Your task to perform on an android device: Open Google Chrome and open the bookmarks view Image 0: 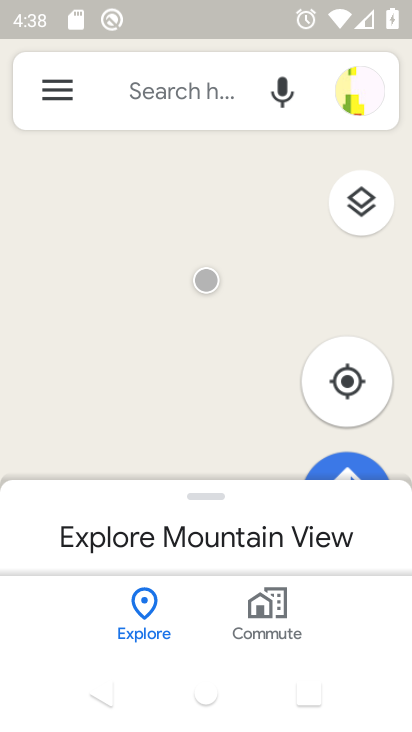
Step 0: press home button
Your task to perform on an android device: Open Google Chrome and open the bookmarks view Image 1: 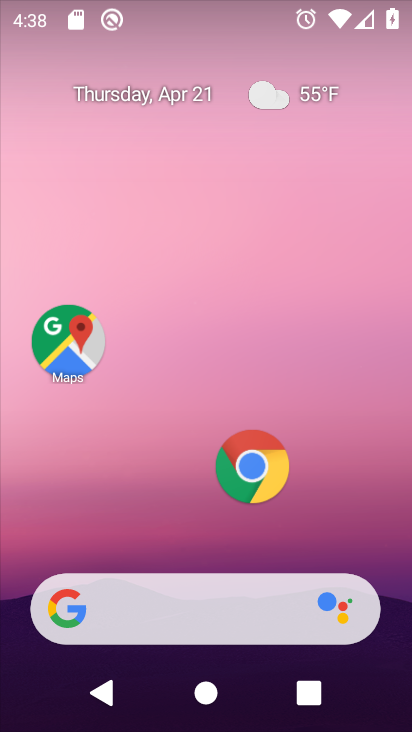
Step 1: click (253, 475)
Your task to perform on an android device: Open Google Chrome and open the bookmarks view Image 2: 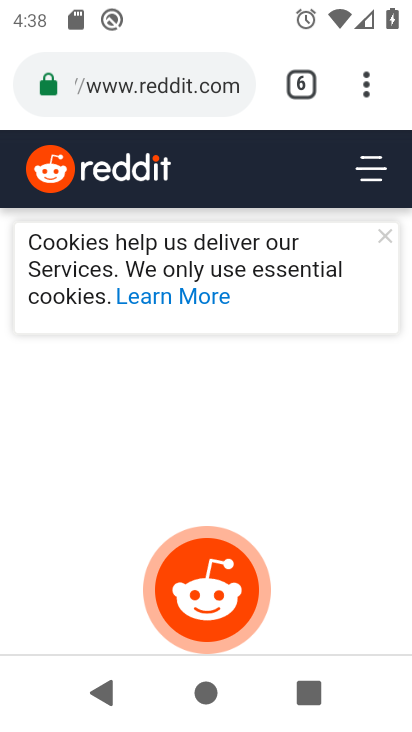
Step 2: click (363, 77)
Your task to perform on an android device: Open Google Chrome and open the bookmarks view Image 3: 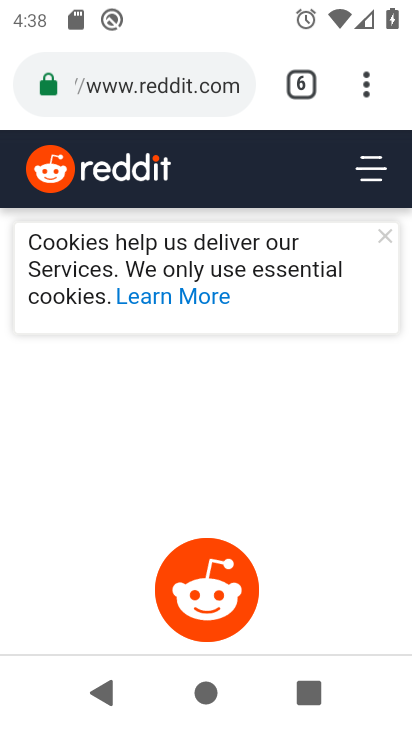
Step 3: click (370, 76)
Your task to perform on an android device: Open Google Chrome and open the bookmarks view Image 4: 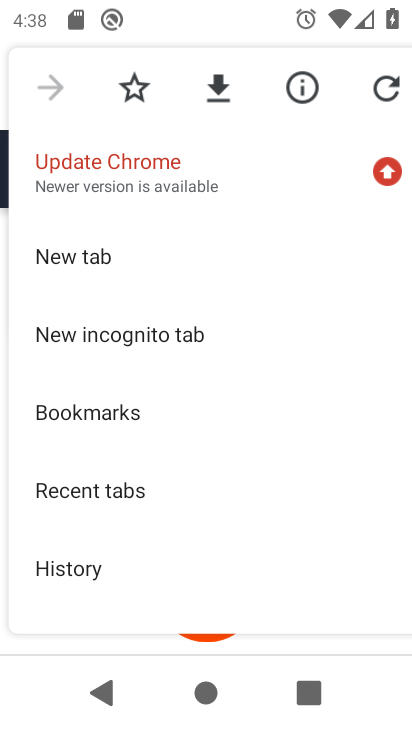
Step 4: click (180, 398)
Your task to perform on an android device: Open Google Chrome and open the bookmarks view Image 5: 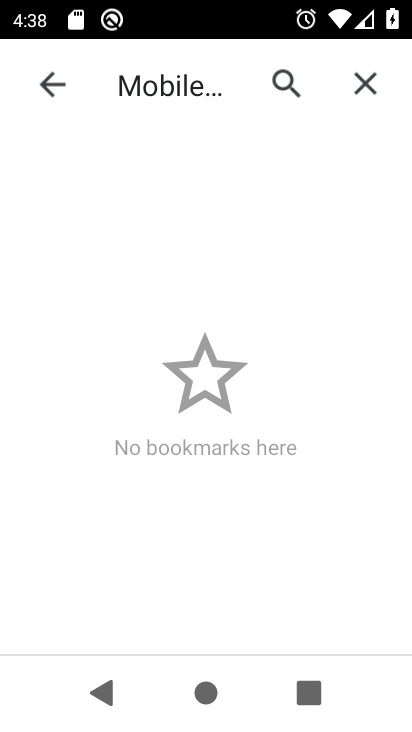
Step 5: task complete